Your task to perform on an android device: all mails in gmail Image 0: 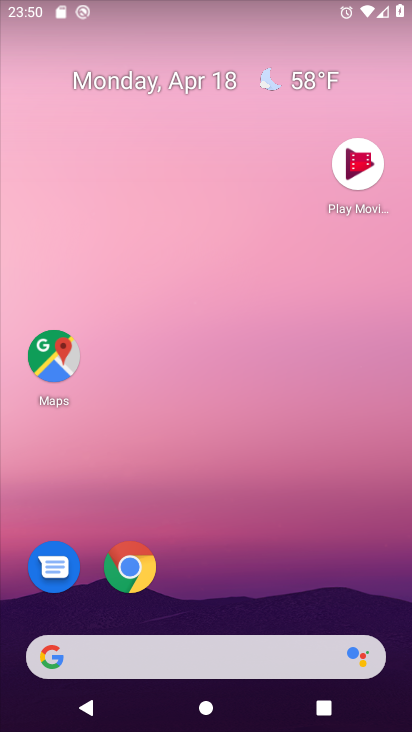
Step 0: click (204, 164)
Your task to perform on an android device: all mails in gmail Image 1: 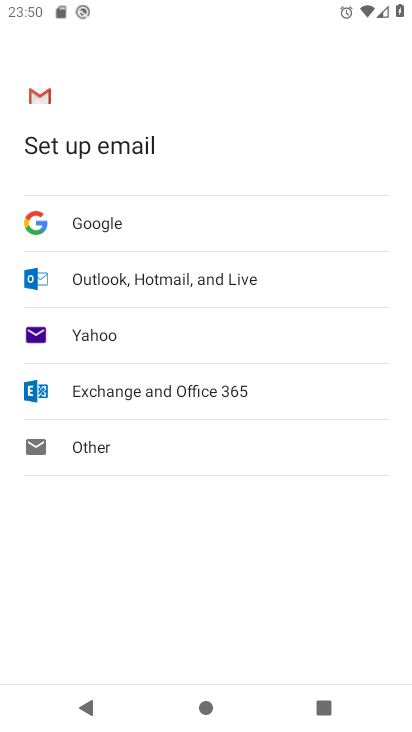
Step 1: drag from (211, 562) to (277, 54)
Your task to perform on an android device: all mails in gmail Image 2: 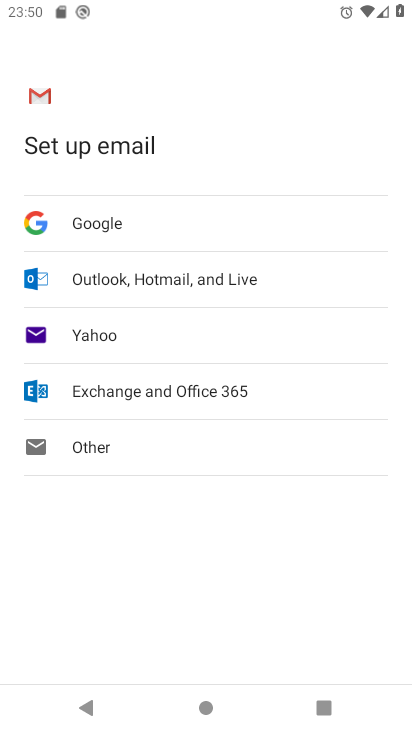
Step 2: press home button
Your task to perform on an android device: all mails in gmail Image 3: 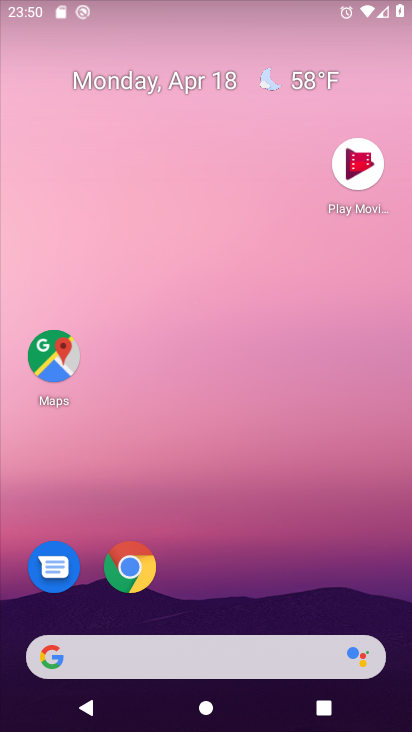
Step 3: drag from (159, 365) to (151, 3)
Your task to perform on an android device: all mails in gmail Image 4: 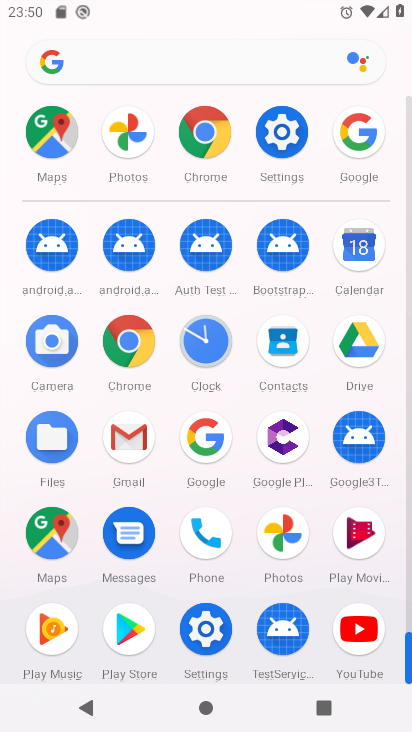
Step 4: drag from (236, 596) to (255, 172)
Your task to perform on an android device: all mails in gmail Image 5: 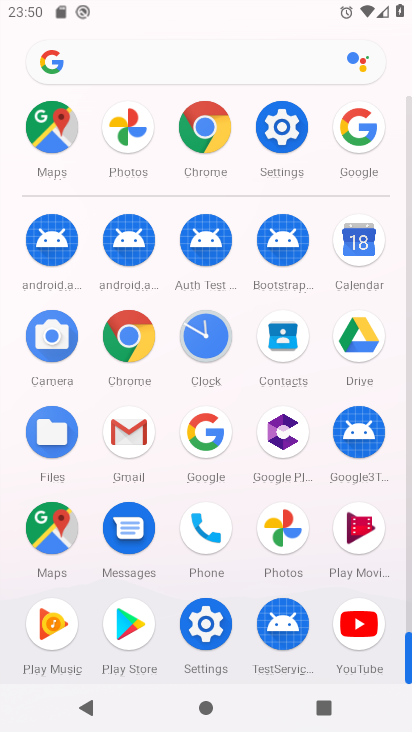
Step 5: click (137, 424)
Your task to perform on an android device: all mails in gmail Image 6: 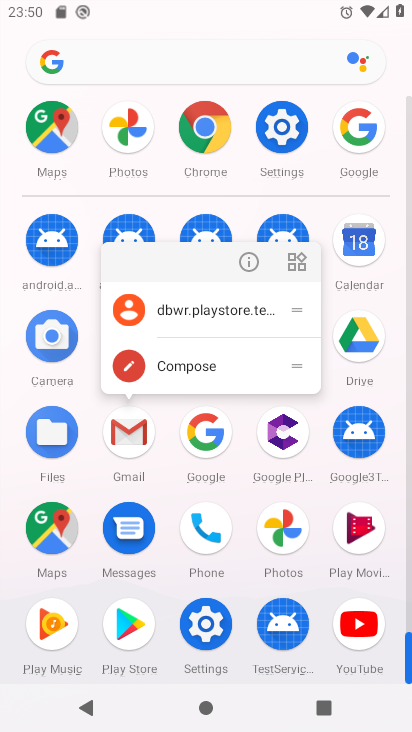
Step 6: click (251, 256)
Your task to perform on an android device: all mails in gmail Image 7: 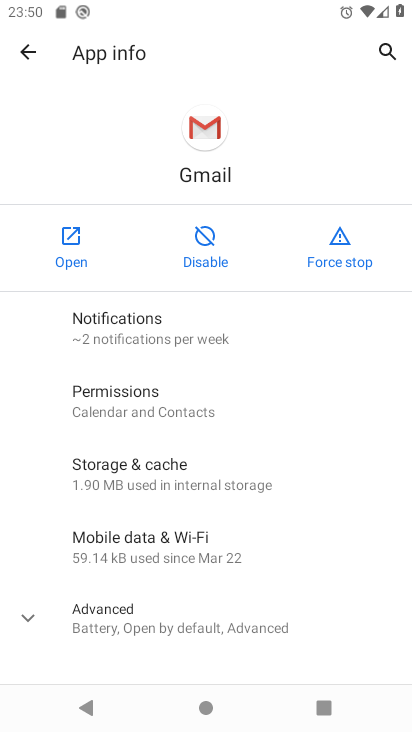
Step 7: click (77, 229)
Your task to perform on an android device: all mails in gmail Image 8: 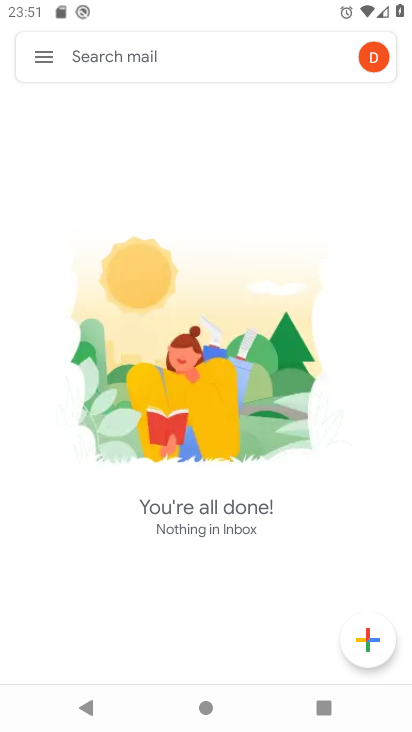
Step 8: click (44, 61)
Your task to perform on an android device: all mails in gmail Image 9: 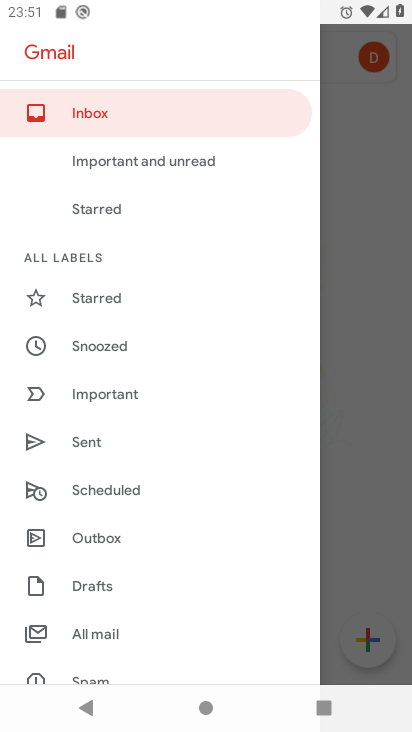
Step 9: drag from (154, 577) to (195, 210)
Your task to perform on an android device: all mails in gmail Image 10: 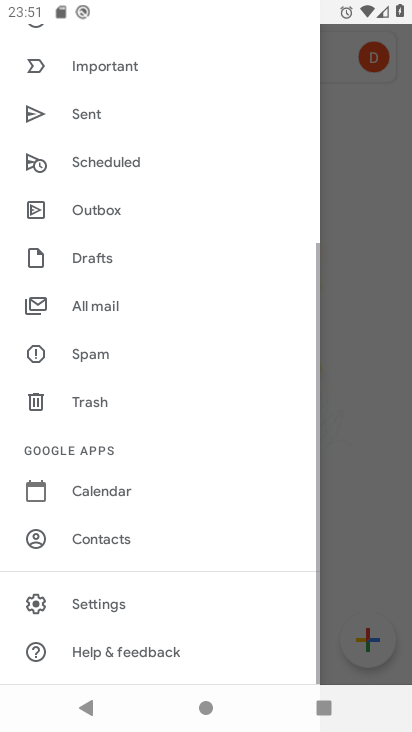
Step 10: click (108, 307)
Your task to perform on an android device: all mails in gmail Image 11: 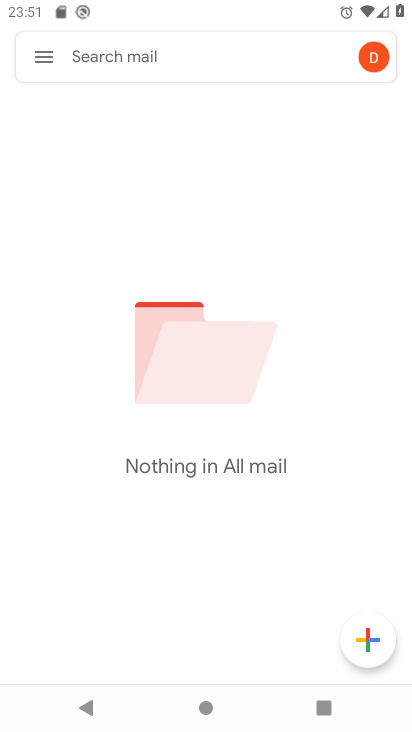
Step 11: task complete